Your task to perform on an android device: Open notification settings Image 0: 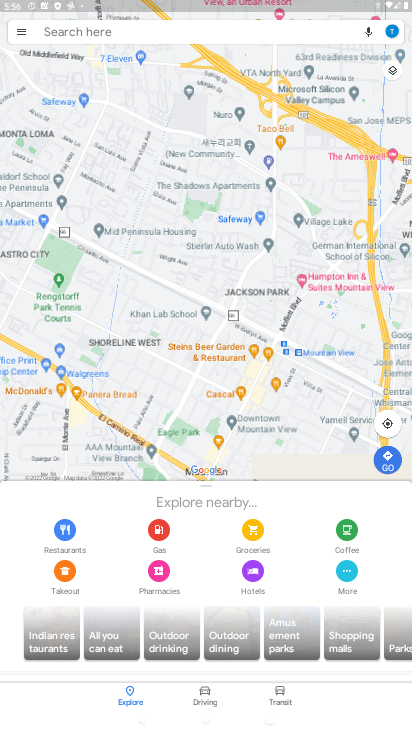
Step 0: press home button
Your task to perform on an android device: Open notification settings Image 1: 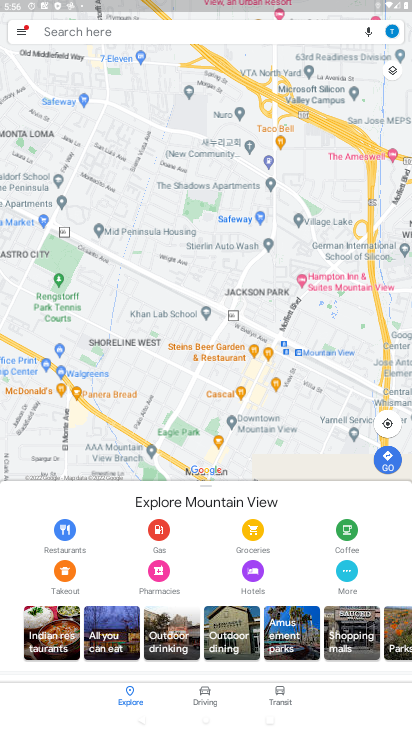
Step 1: drag from (354, 694) to (225, 34)
Your task to perform on an android device: Open notification settings Image 2: 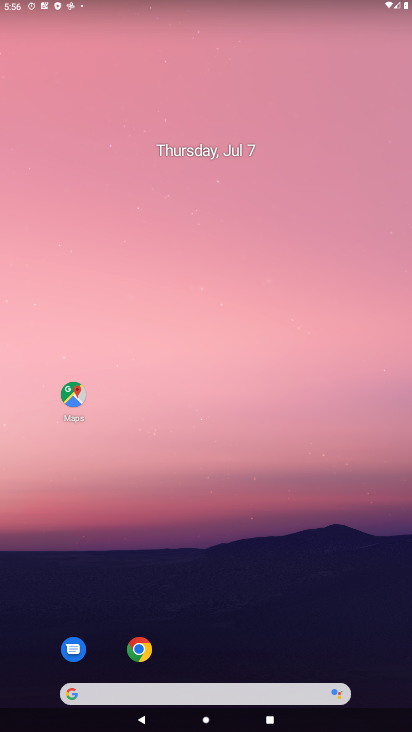
Step 2: drag from (377, 665) to (264, 30)
Your task to perform on an android device: Open notification settings Image 3: 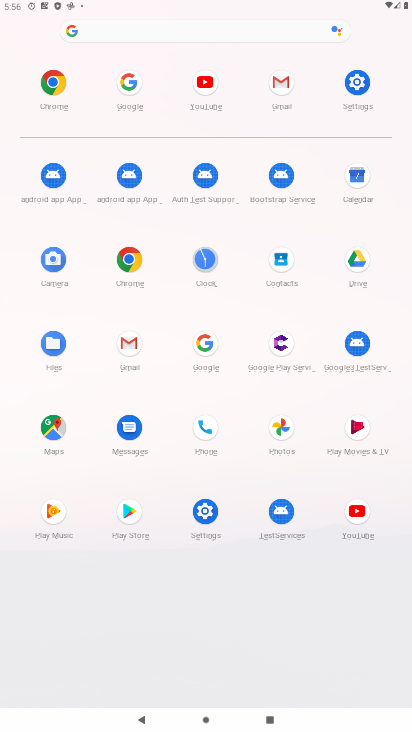
Step 3: click (360, 86)
Your task to perform on an android device: Open notification settings Image 4: 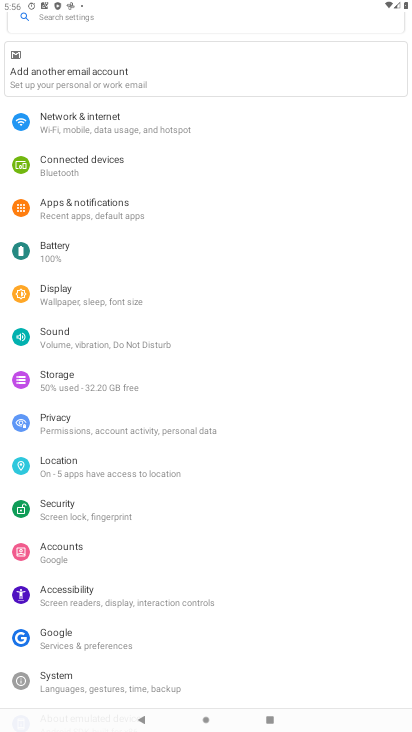
Step 4: click (118, 226)
Your task to perform on an android device: Open notification settings Image 5: 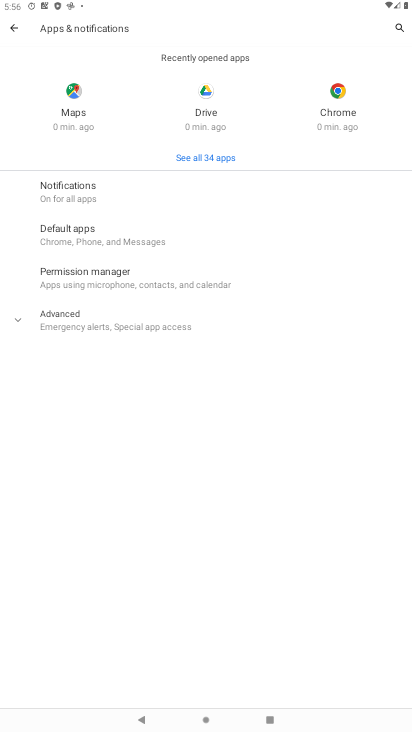
Step 5: click (101, 203)
Your task to perform on an android device: Open notification settings Image 6: 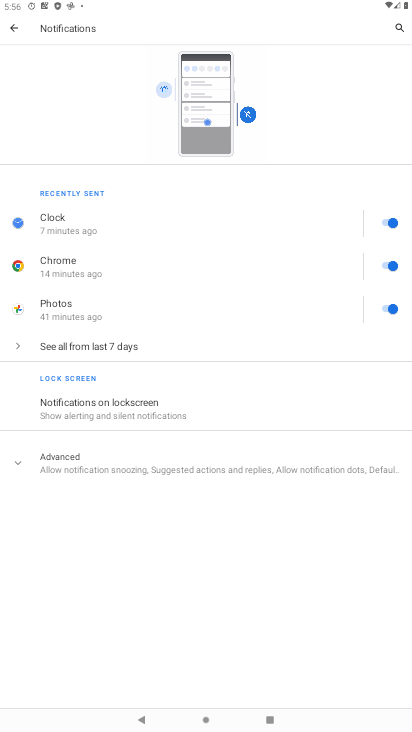
Step 6: task complete